Your task to perform on an android device: open the mobile data screen to see how much data has been used Image 0: 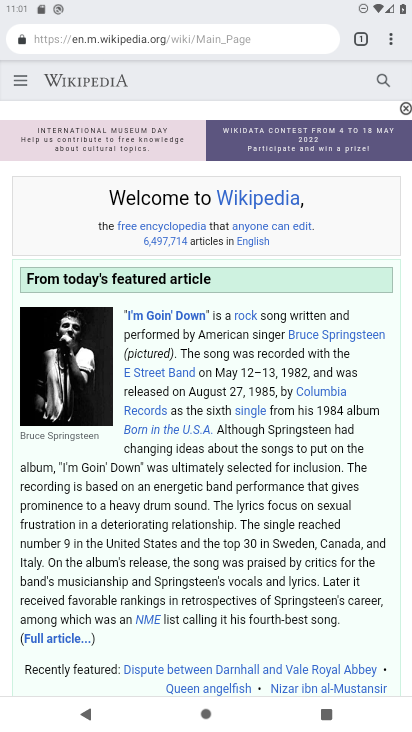
Step 0: press home button
Your task to perform on an android device: open the mobile data screen to see how much data has been used Image 1: 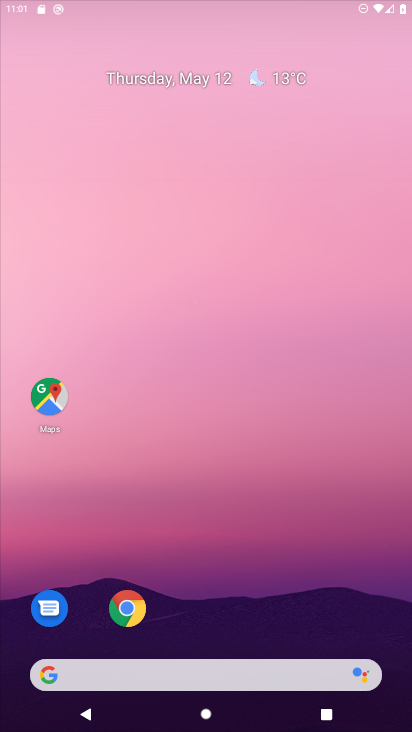
Step 1: drag from (229, 624) to (225, 75)
Your task to perform on an android device: open the mobile data screen to see how much data has been used Image 2: 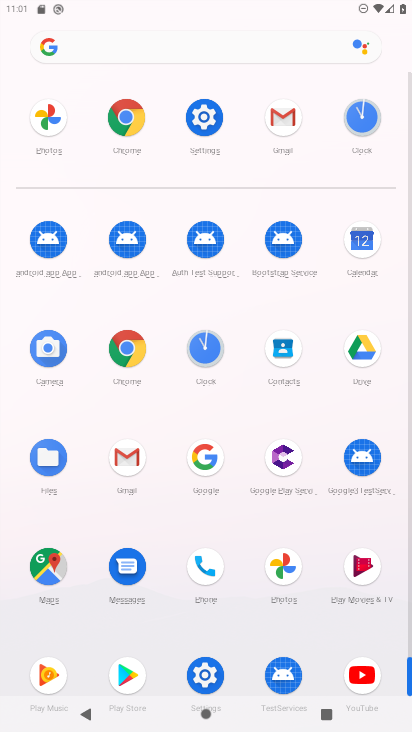
Step 2: click (202, 117)
Your task to perform on an android device: open the mobile data screen to see how much data has been used Image 3: 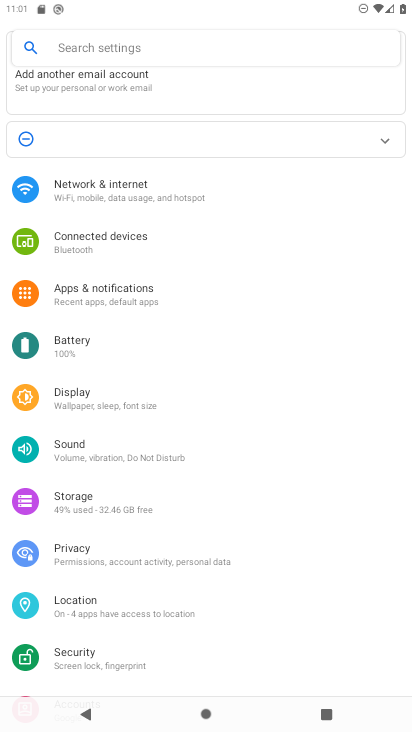
Step 3: click (135, 182)
Your task to perform on an android device: open the mobile data screen to see how much data has been used Image 4: 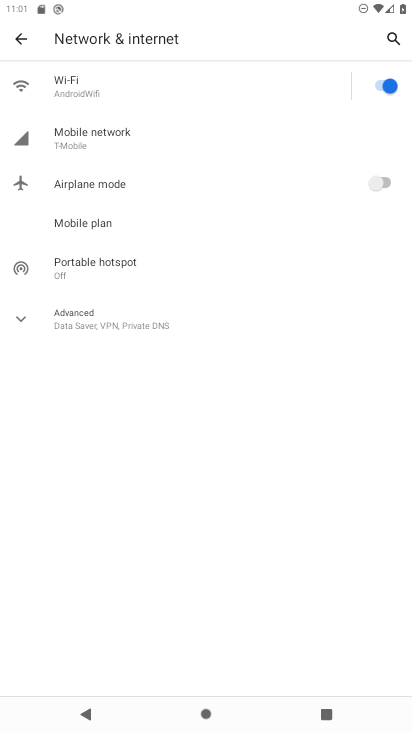
Step 4: click (95, 137)
Your task to perform on an android device: open the mobile data screen to see how much data has been used Image 5: 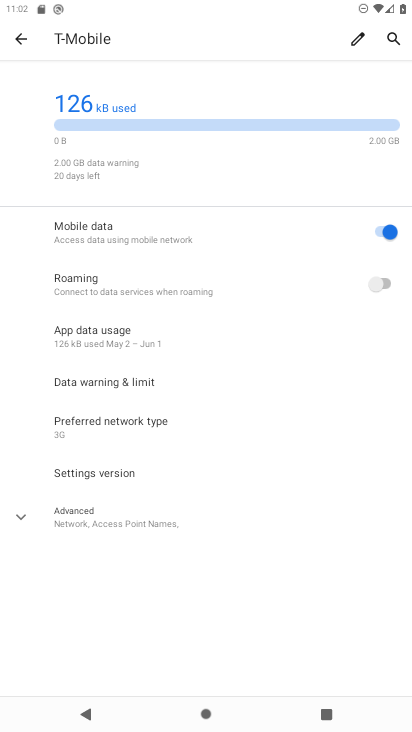
Step 5: task complete